Your task to perform on an android device: set an alarm Image 0: 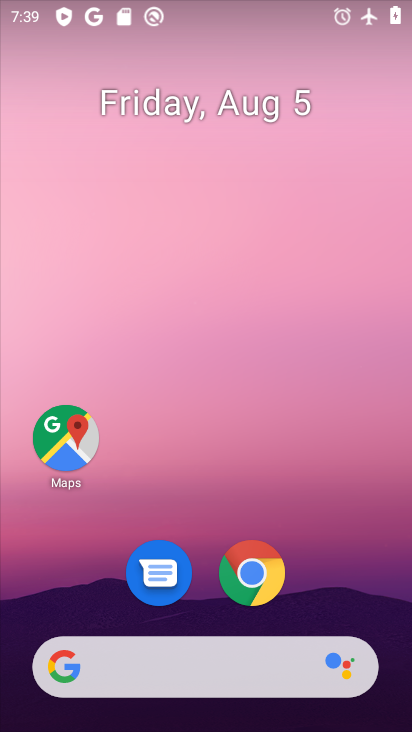
Step 0: drag from (324, 563) to (348, 28)
Your task to perform on an android device: set an alarm Image 1: 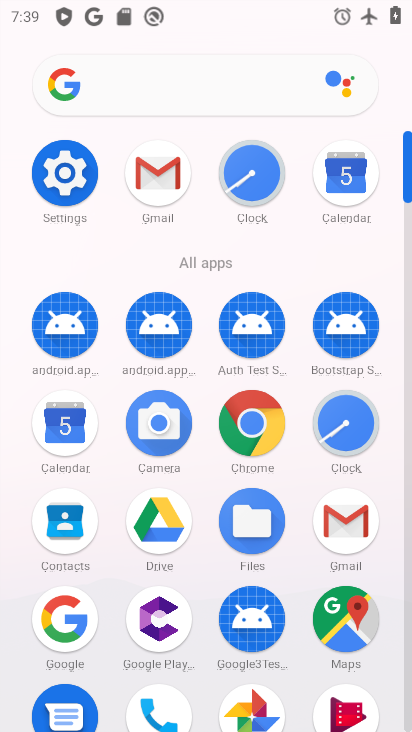
Step 1: click (69, 415)
Your task to perform on an android device: set an alarm Image 2: 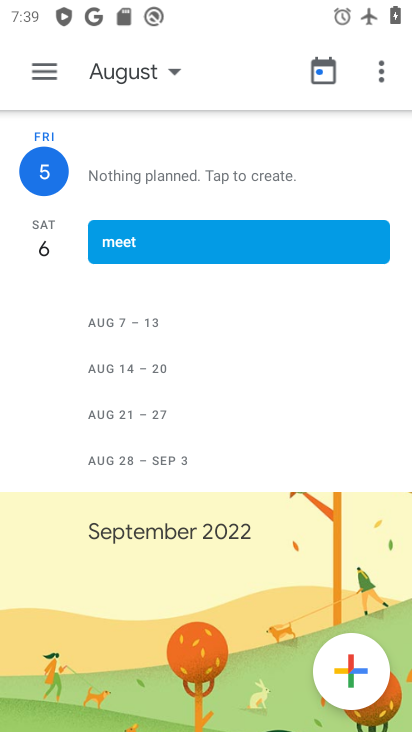
Step 2: press back button
Your task to perform on an android device: set an alarm Image 3: 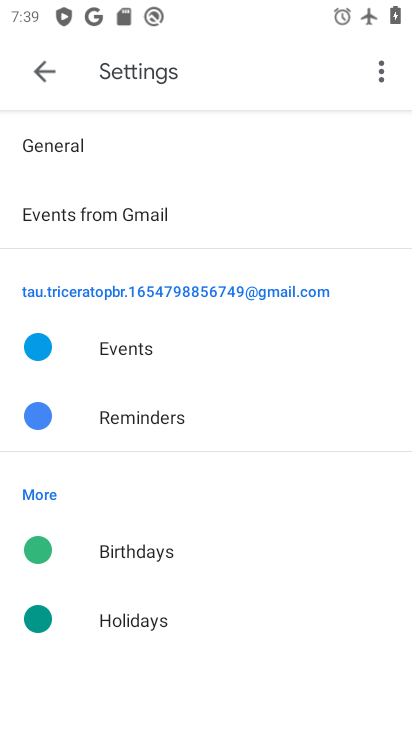
Step 3: press home button
Your task to perform on an android device: set an alarm Image 4: 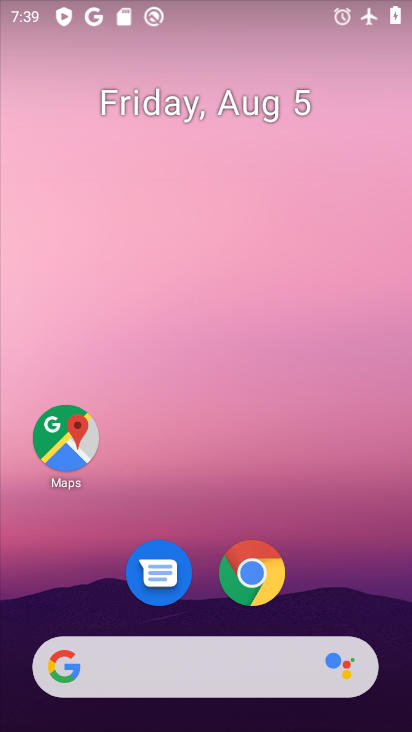
Step 4: drag from (300, 531) to (317, 27)
Your task to perform on an android device: set an alarm Image 5: 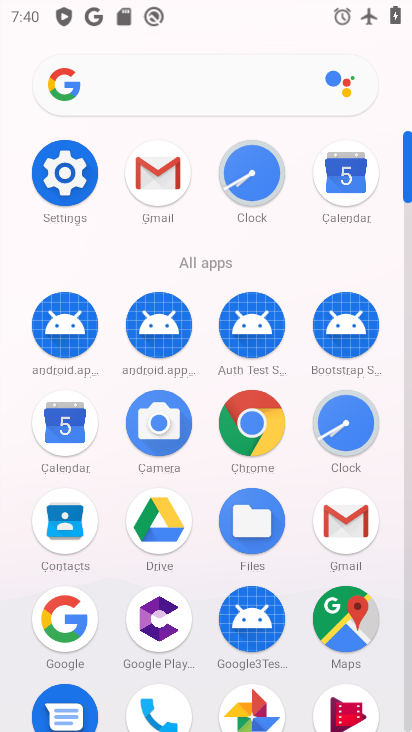
Step 5: click (252, 171)
Your task to perform on an android device: set an alarm Image 6: 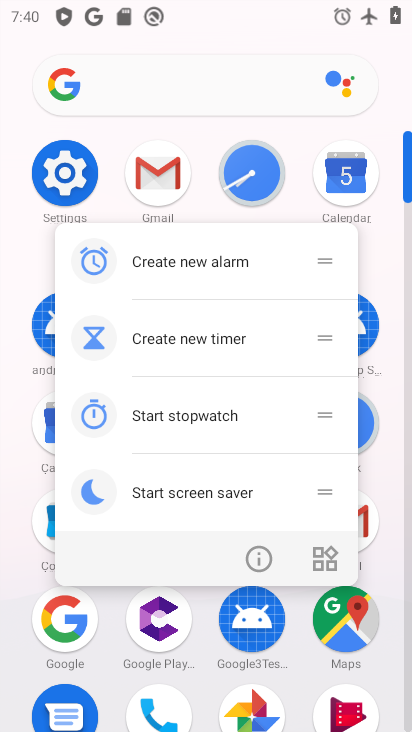
Step 6: click (252, 173)
Your task to perform on an android device: set an alarm Image 7: 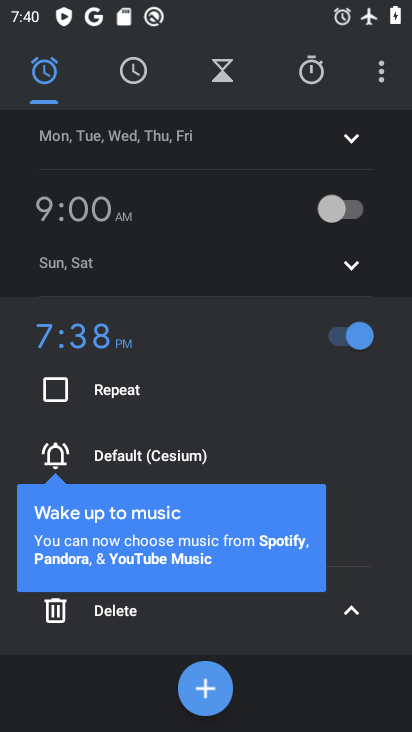
Step 7: click (213, 686)
Your task to perform on an android device: set an alarm Image 8: 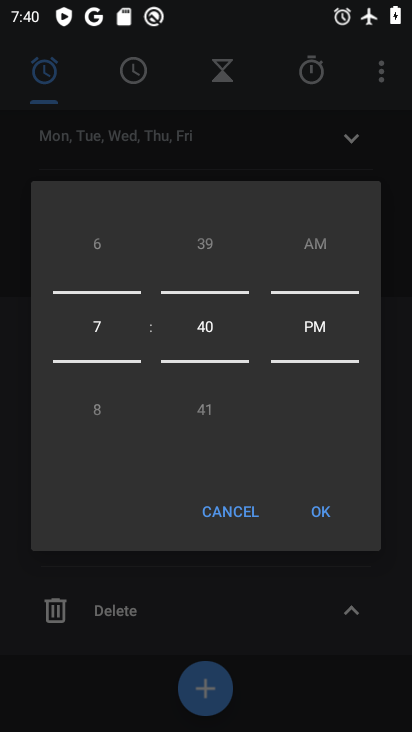
Step 8: click (319, 513)
Your task to perform on an android device: set an alarm Image 9: 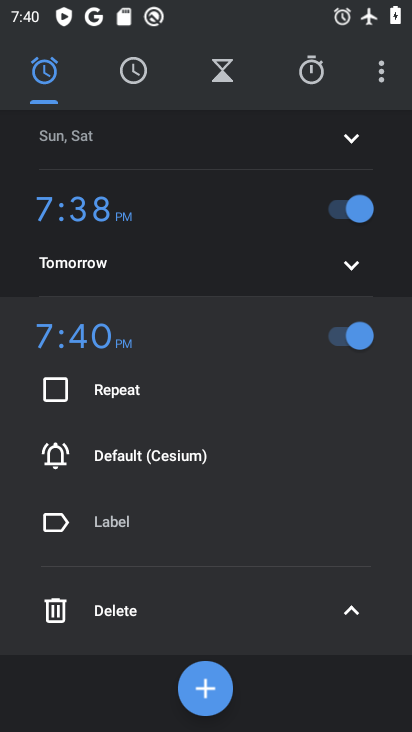
Step 9: task complete